Your task to perform on an android device: clear all cookies in the chrome app Image 0: 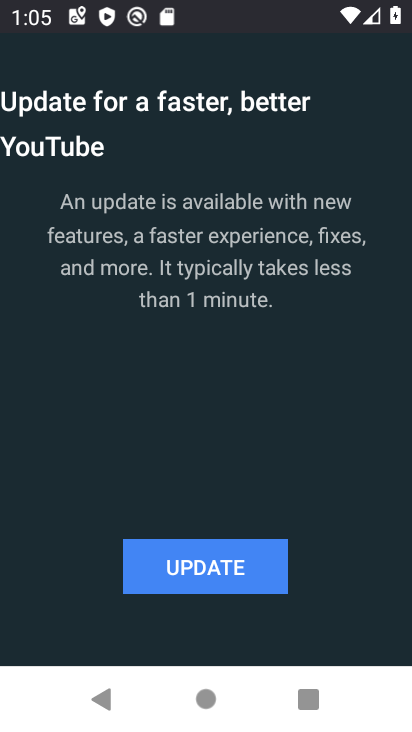
Step 0: press home button
Your task to perform on an android device: clear all cookies in the chrome app Image 1: 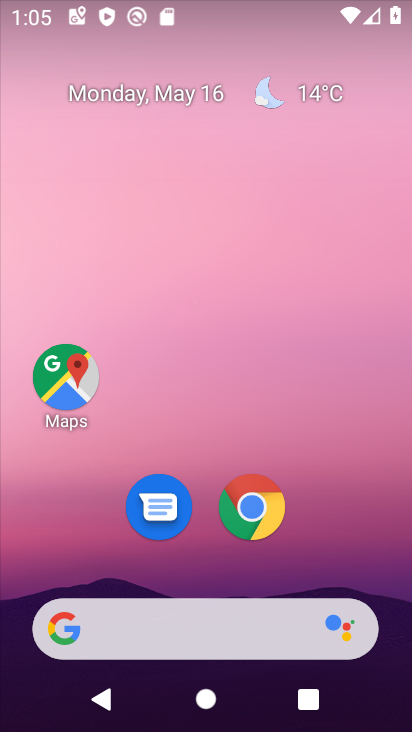
Step 1: click (243, 502)
Your task to perform on an android device: clear all cookies in the chrome app Image 2: 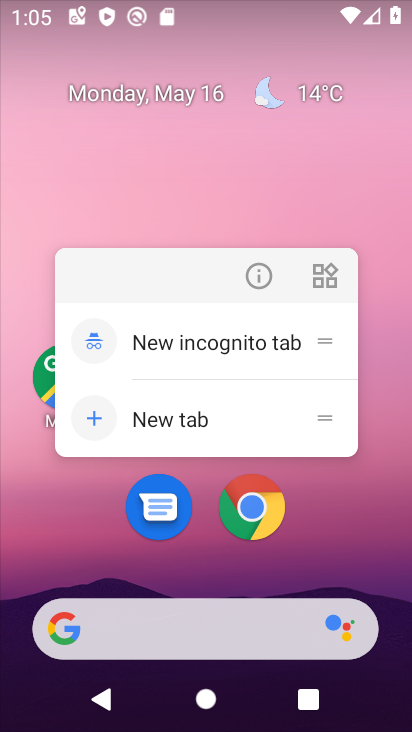
Step 2: click (240, 502)
Your task to perform on an android device: clear all cookies in the chrome app Image 3: 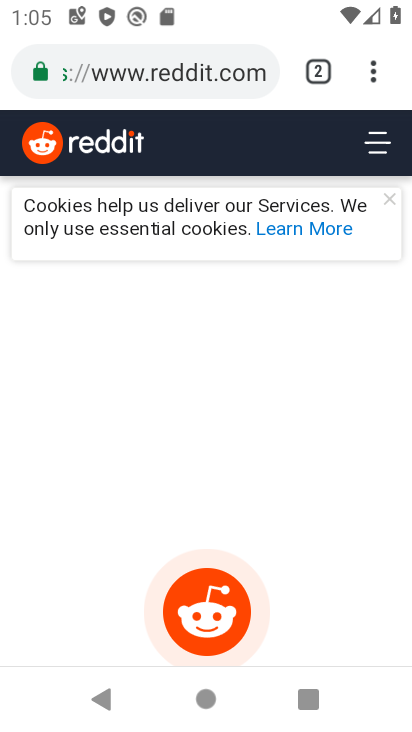
Step 3: click (373, 81)
Your task to perform on an android device: clear all cookies in the chrome app Image 4: 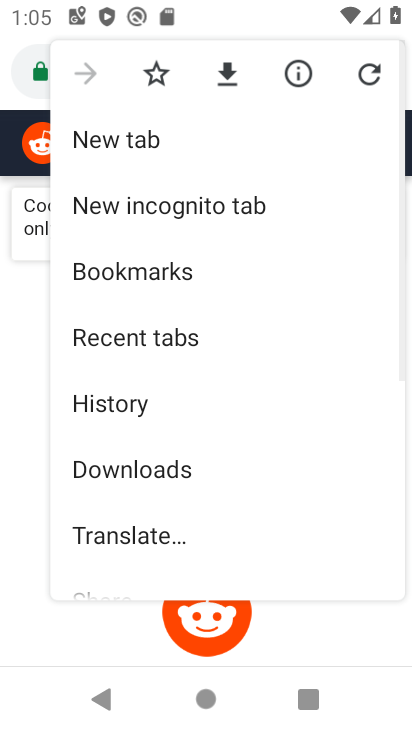
Step 4: drag from (141, 544) to (242, 83)
Your task to perform on an android device: clear all cookies in the chrome app Image 5: 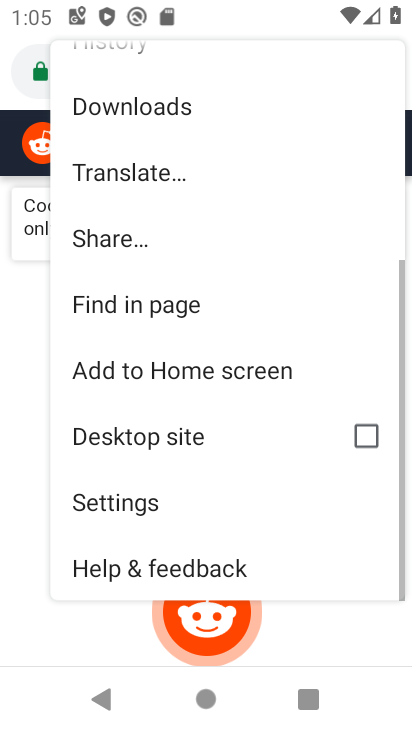
Step 5: click (133, 510)
Your task to perform on an android device: clear all cookies in the chrome app Image 6: 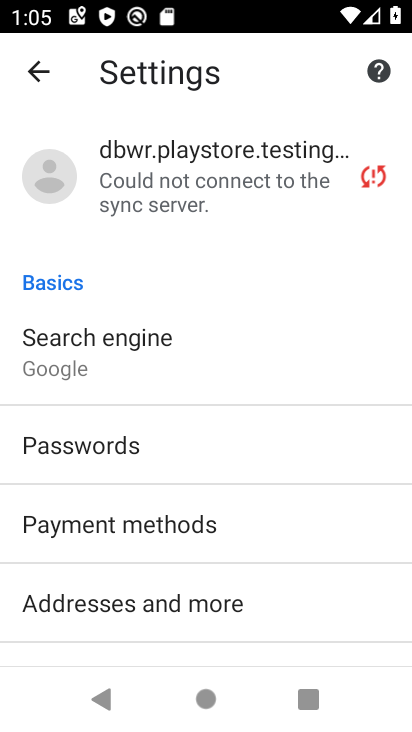
Step 6: drag from (89, 660) to (170, 257)
Your task to perform on an android device: clear all cookies in the chrome app Image 7: 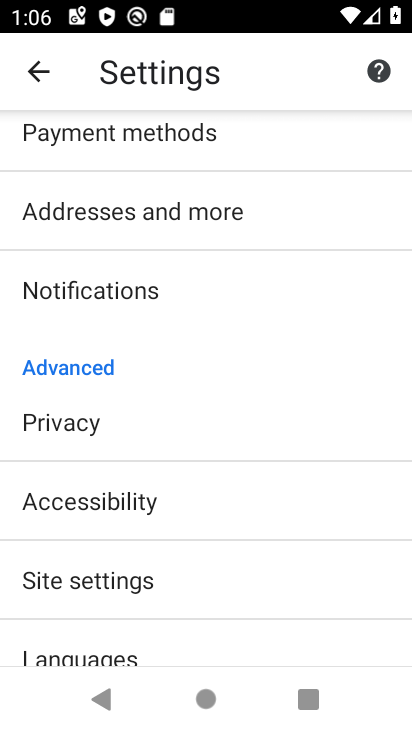
Step 7: click (113, 428)
Your task to perform on an android device: clear all cookies in the chrome app Image 8: 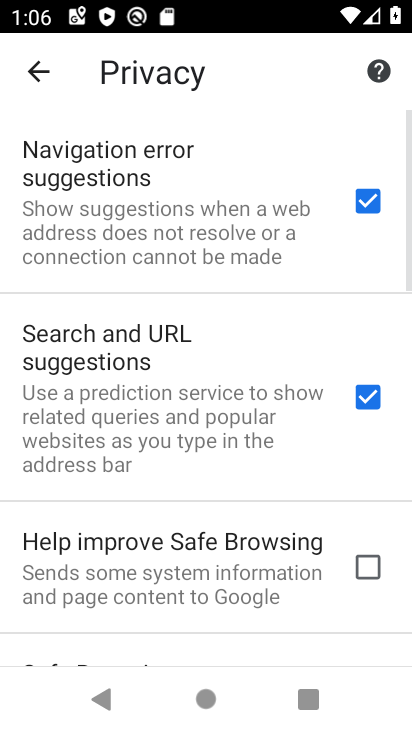
Step 8: drag from (69, 579) to (169, 176)
Your task to perform on an android device: clear all cookies in the chrome app Image 9: 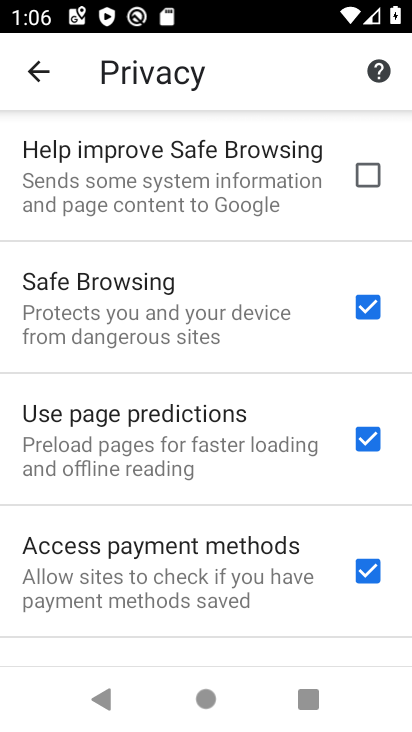
Step 9: drag from (33, 611) to (212, 253)
Your task to perform on an android device: clear all cookies in the chrome app Image 10: 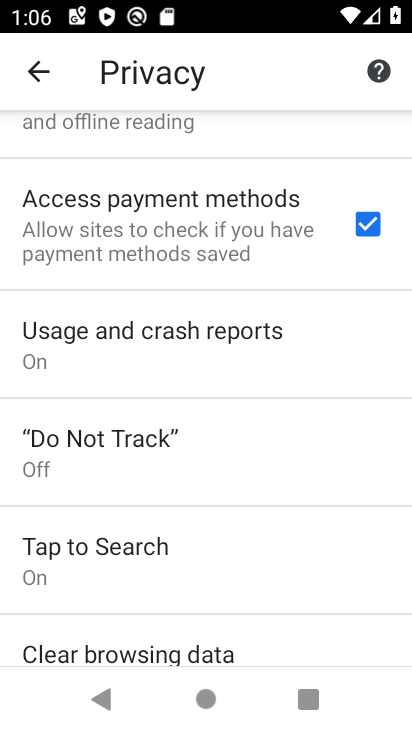
Step 10: click (130, 643)
Your task to perform on an android device: clear all cookies in the chrome app Image 11: 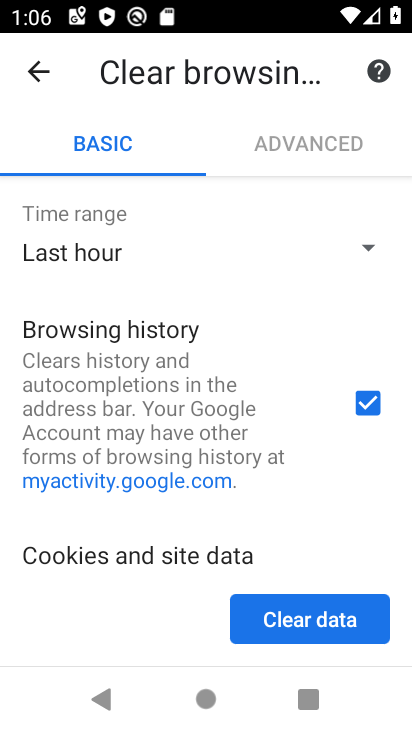
Step 11: click (304, 616)
Your task to perform on an android device: clear all cookies in the chrome app Image 12: 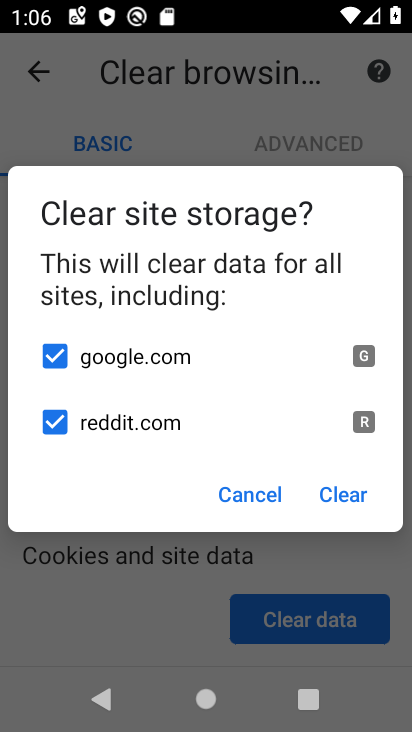
Step 12: click (358, 487)
Your task to perform on an android device: clear all cookies in the chrome app Image 13: 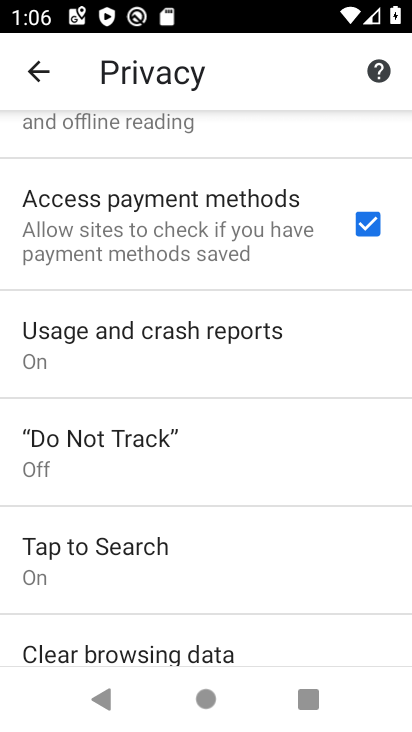
Step 13: task complete